Your task to perform on an android device: Add razer blade to the cart on costco Image 0: 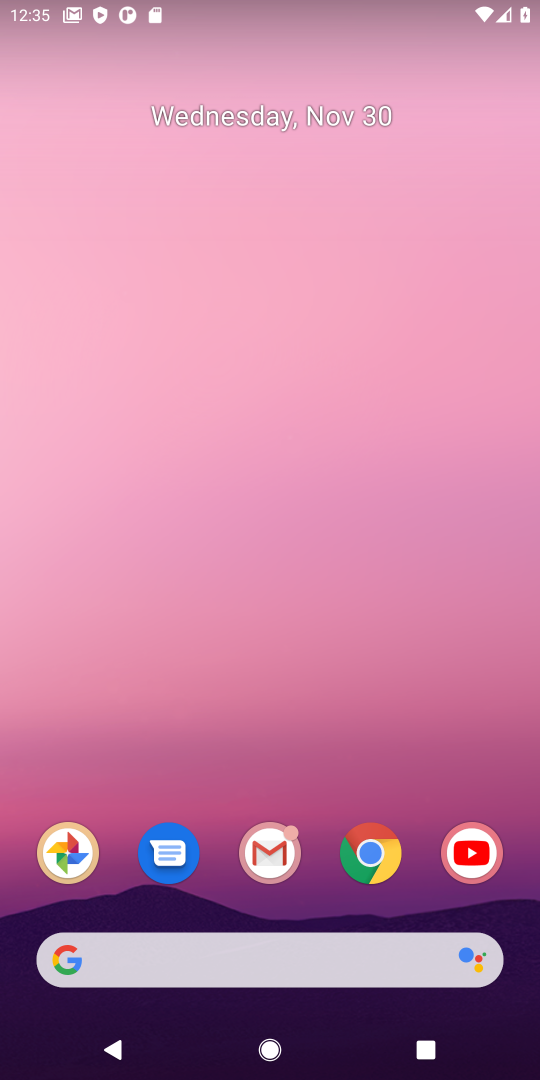
Step 0: click (375, 854)
Your task to perform on an android device: Add razer blade to the cart on costco Image 1: 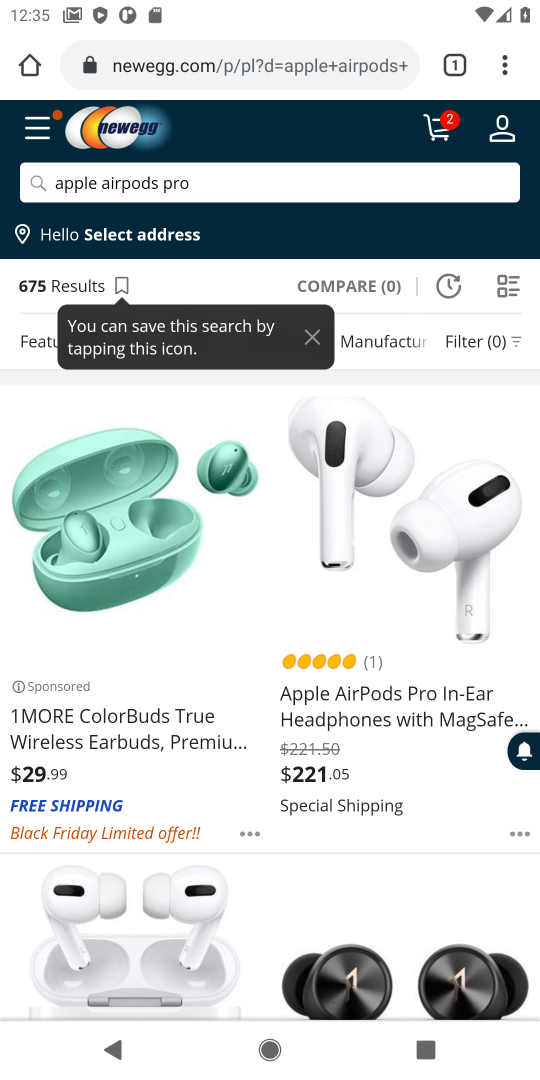
Step 1: click (185, 74)
Your task to perform on an android device: Add razer blade to the cart on costco Image 2: 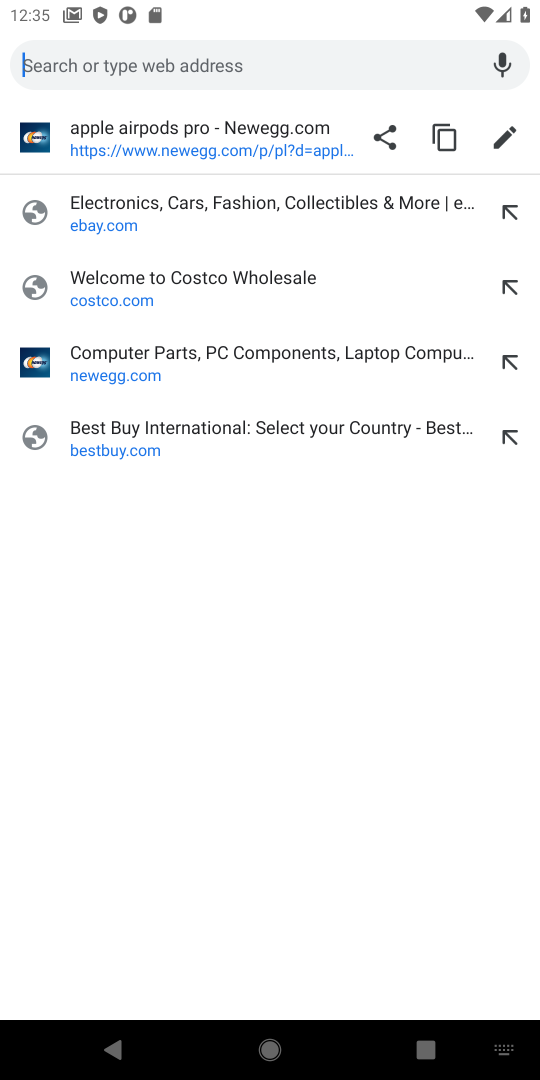
Step 2: click (92, 294)
Your task to perform on an android device: Add razer blade to the cart on costco Image 3: 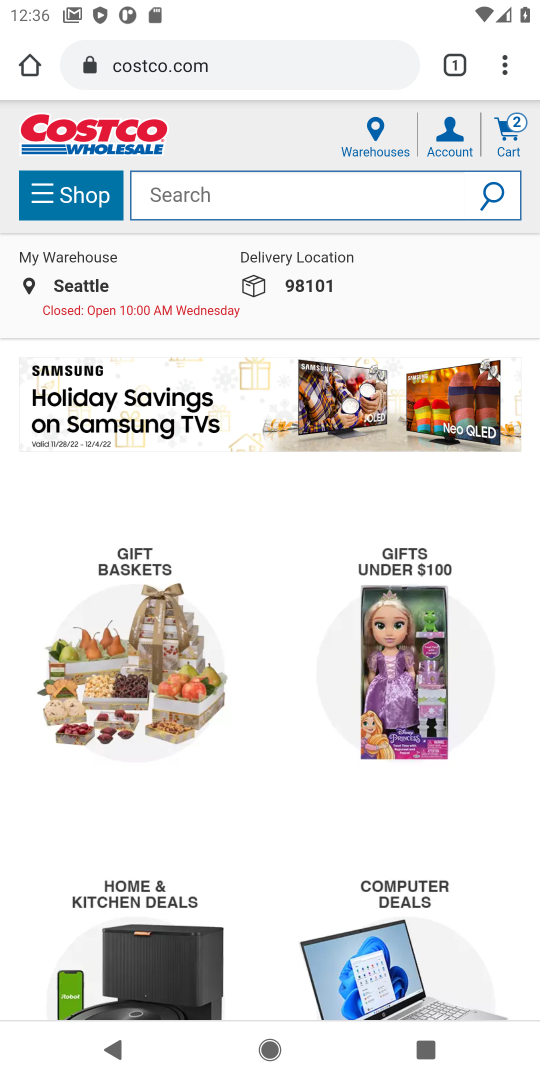
Step 3: click (195, 189)
Your task to perform on an android device: Add razer blade to the cart on costco Image 4: 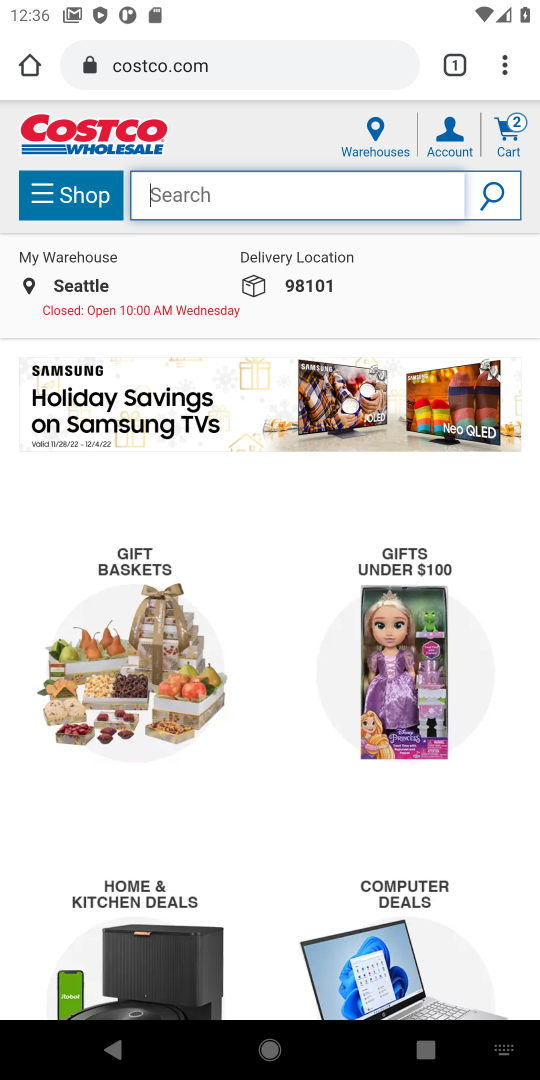
Step 4: type " razer blade"
Your task to perform on an android device: Add razer blade to the cart on costco Image 5: 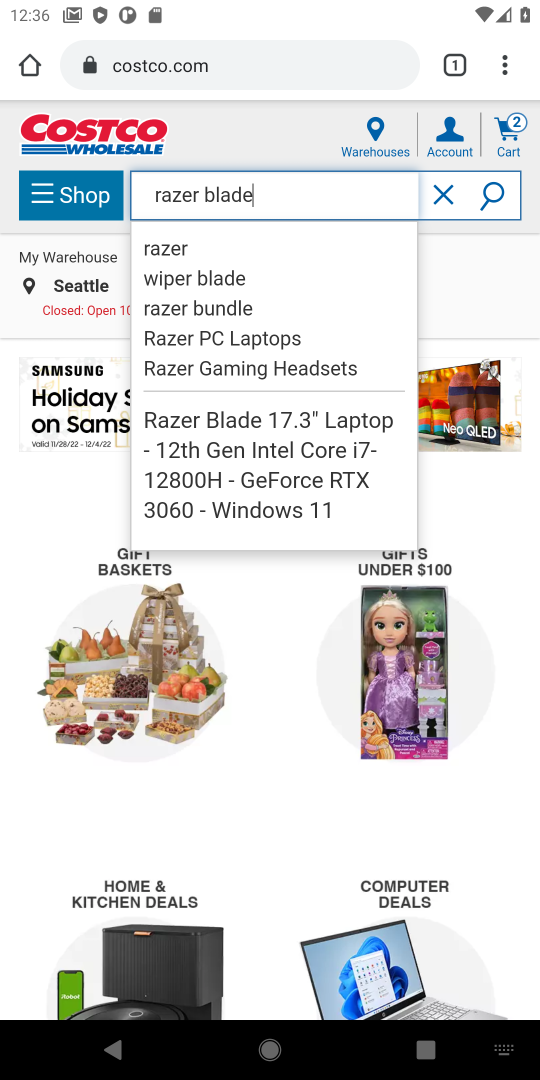
Step 5: click (500, 198)
Your task to perform on an android device: Add razer blade to the cart on costco Image 6: 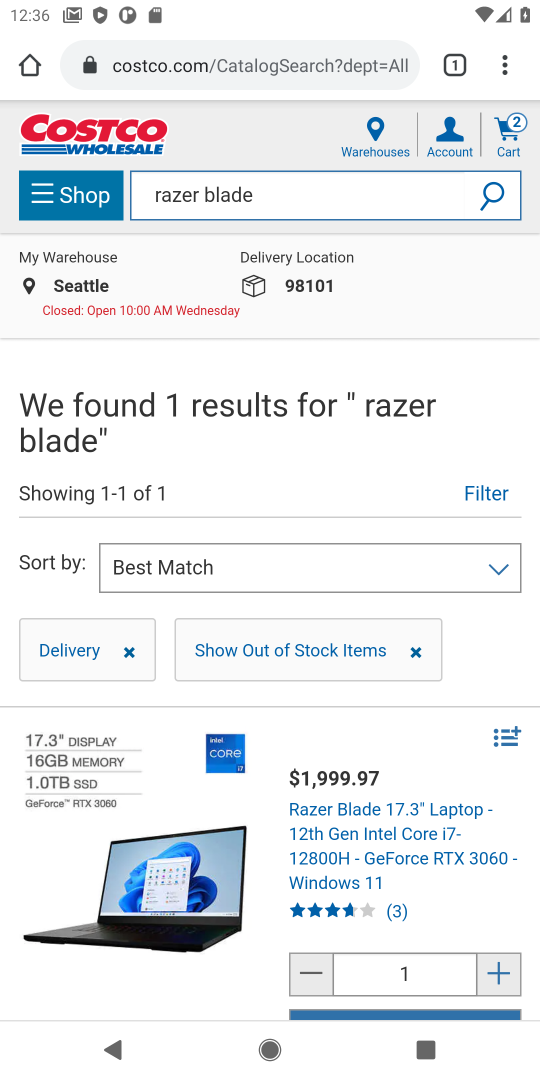
Step 6: drag from (235, 710) to (246, 314)
Your task to perform on an android device: Add razer blade to the cart on costco Image 7: 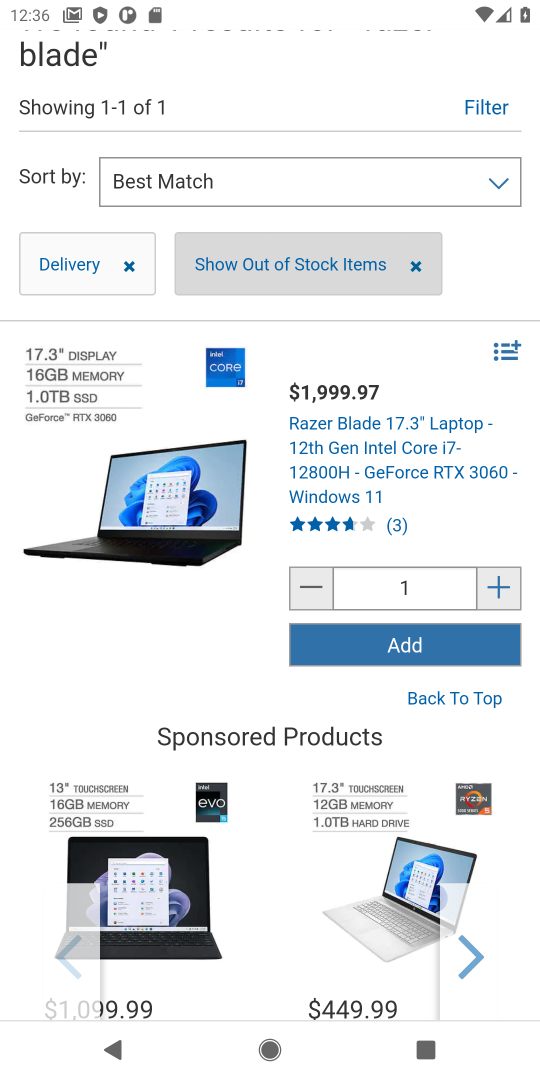
Step 7: click (378, 649)
Your task to perform on an android device: Add razer blade to the cart on costco Image 8: 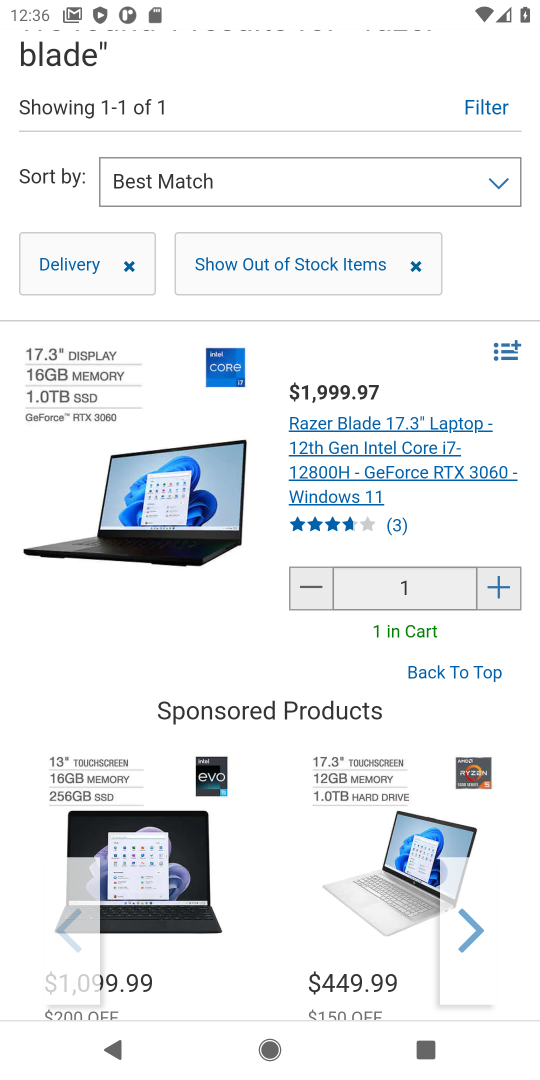
Step 8: task complete